Your task to perform on an android device: Open internet settings Image 0: 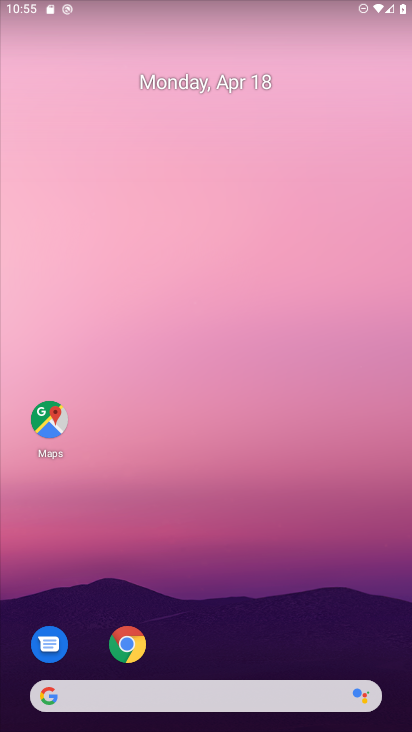
Step 0: drag from (187, 656) to (209, 198)
Your task to perform on an android device: Open internet settings Image 1: 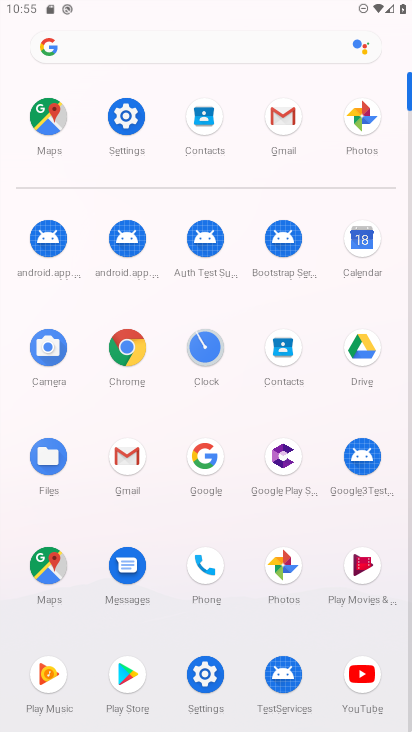
Step 1: click (127, 116)
Your task to perform on an android device: Open internet settings Image 2: 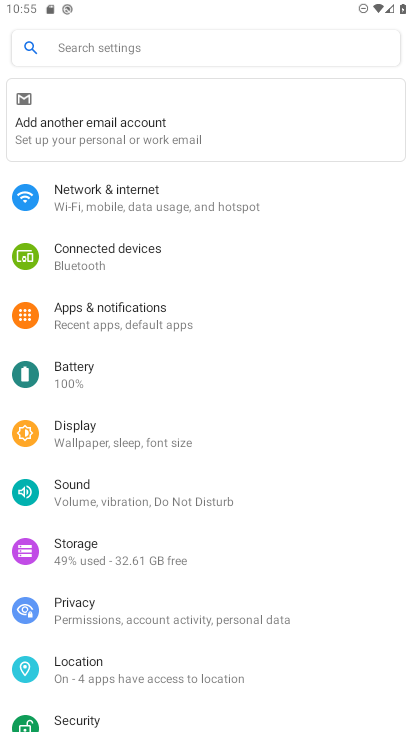
Step 2: click (160, 194)
Your task to perform on an android device: Open internet settings Image 3: 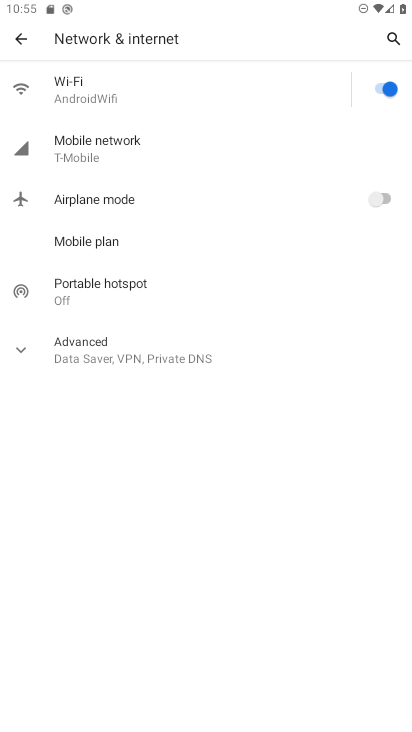
Step 3: task complete